Your task to perform on an android device: find which apps use the phone's location Image 0: 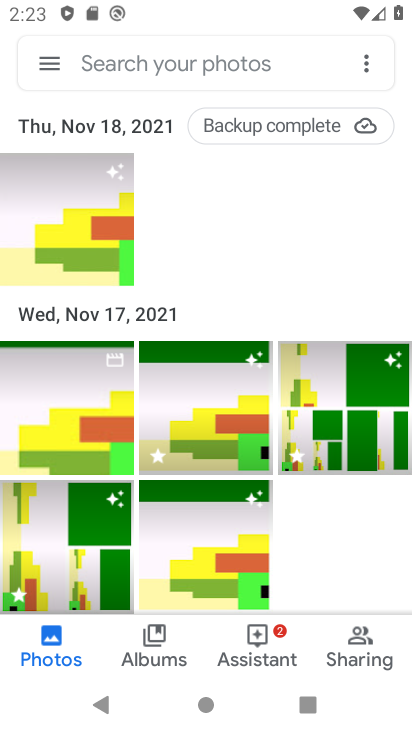
Step 0: press home button
Your task to perform on an android device: find which apps use the phone's location Image 1: 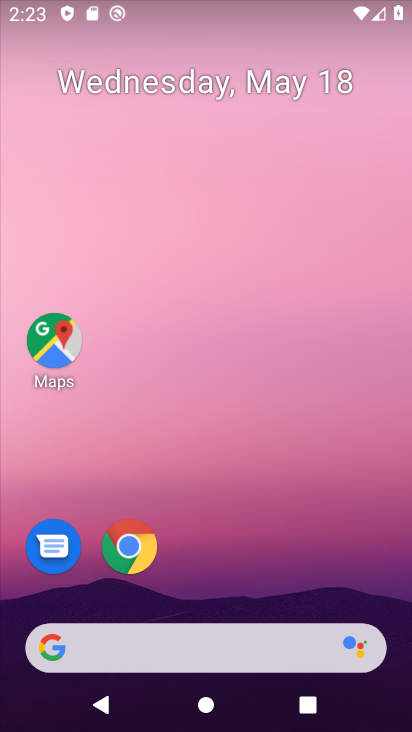
Step 1: drag from (225, 725) to (234, 246)
Your task to perform on an android device: find which apps use the phone's location Image 2: 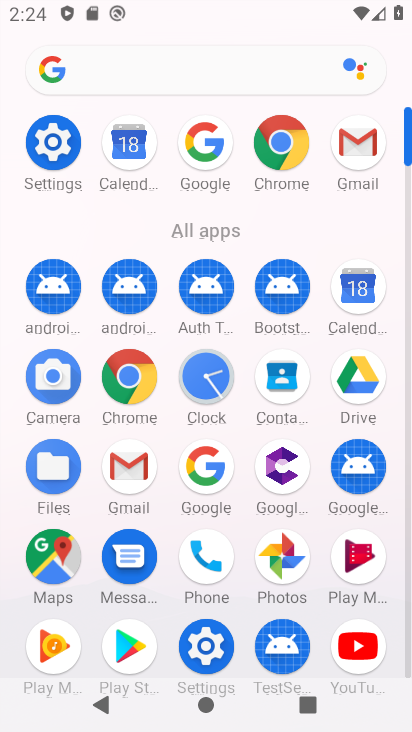
Step 2: click (63, 139)
Your task to perform on an android device: find which apps use the phone's location Image 3: 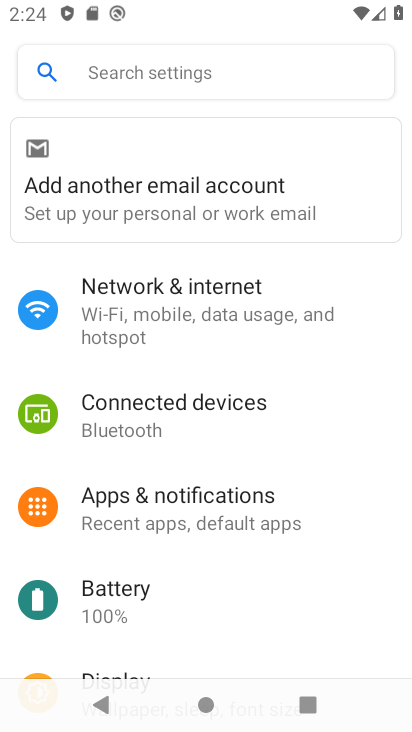
Step 3: drag from (177, 647) to (194, 267)
Your task to perform on an android device: find which apps use the phone's location Image 4: 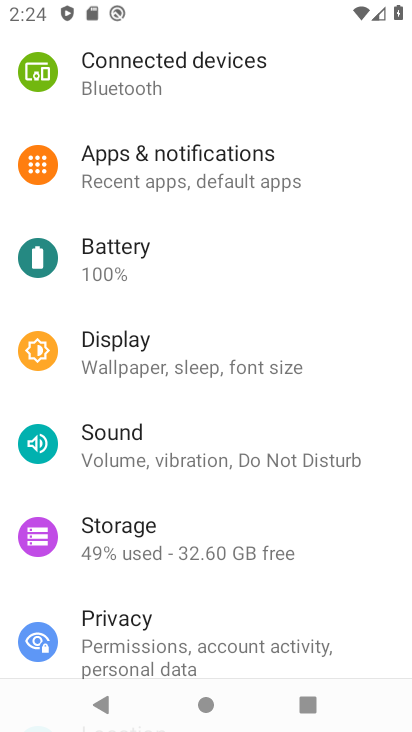
Step 4: drag from (141, 638) to (148, 258)
Your task to perform on an android device: find which apps use the phone's location Image 5: 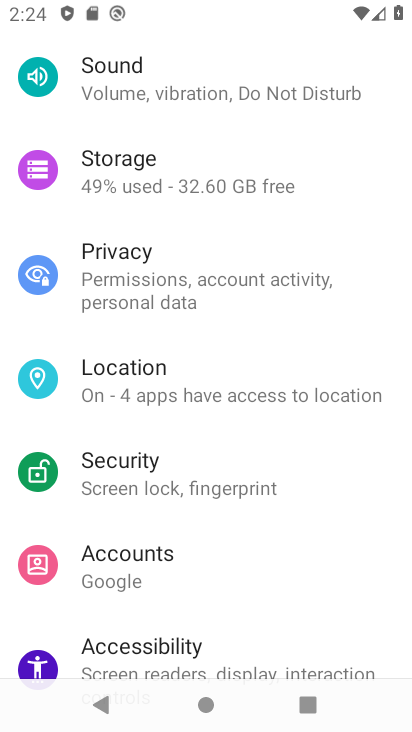
Step 5: click (130, 387)
Your task to perform on an android device: find which apps use the phone's location Image 6: 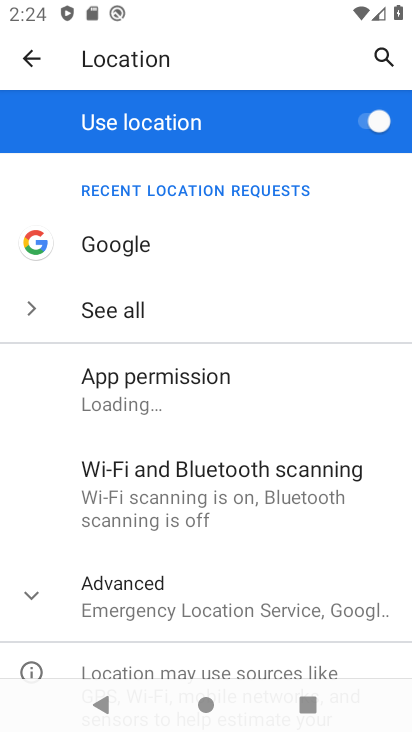
Step 6: click (116, 397)
Your task to perform on an android device: find which apps use the phone's location Image 7: 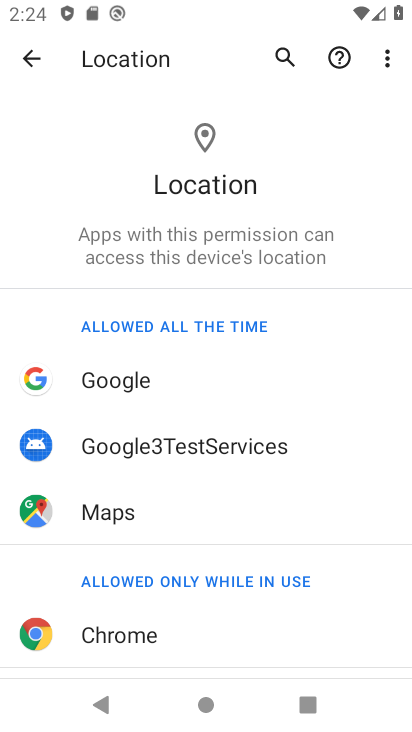
Step 7: task complete